Your task to perform on an android device: delete browsing data in the chrome app Image 0: 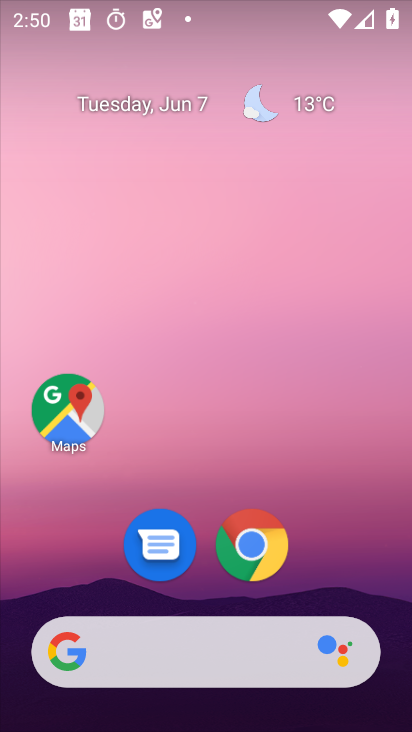
Step 0: click (273, 549)
Your task to perform on an android device: delete browsing data in the chrome app Image 1: 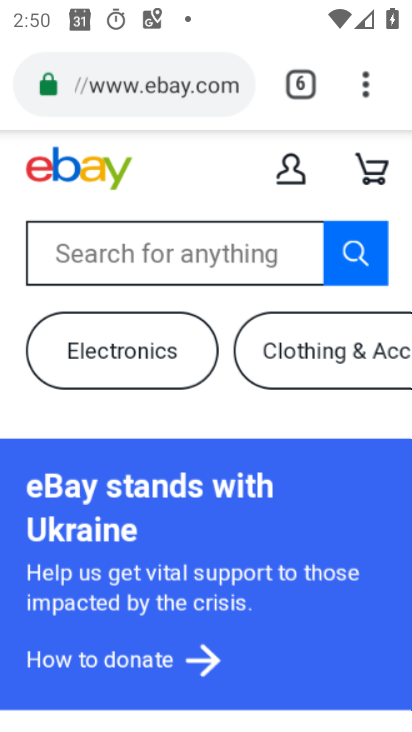
Step 1: click (364, 82)
Your task to perform on an android device: delete browsing data in the chrome app Image 2: 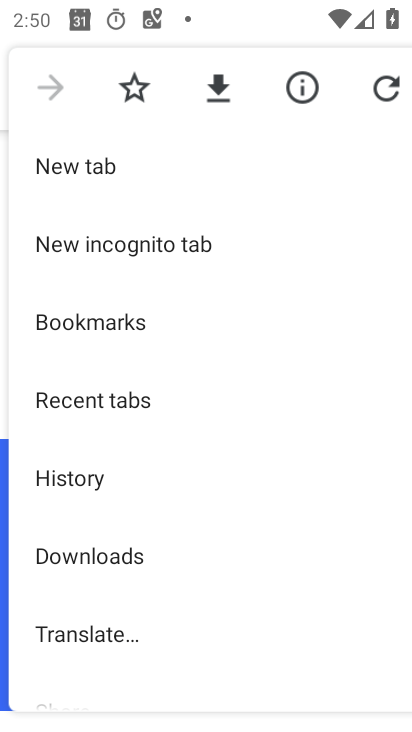
Step 2: click (141, 475)
Your task to perform on an android device: delete browsing data in the chrome app Image 3: 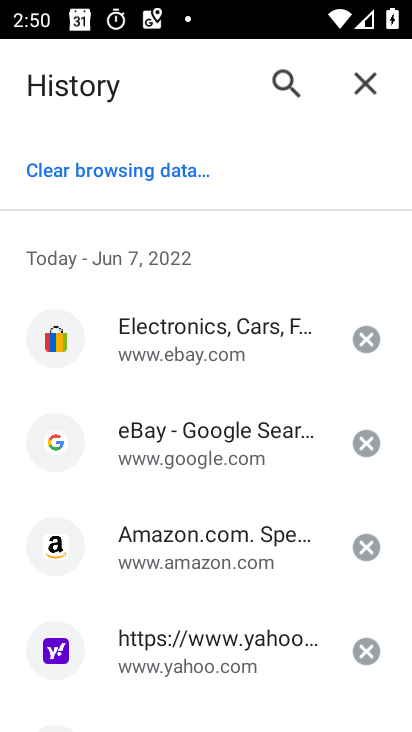
Step 3: click (161, 172)
Your task to perform on an android device: delete browsing data in the chrome app Image 4: 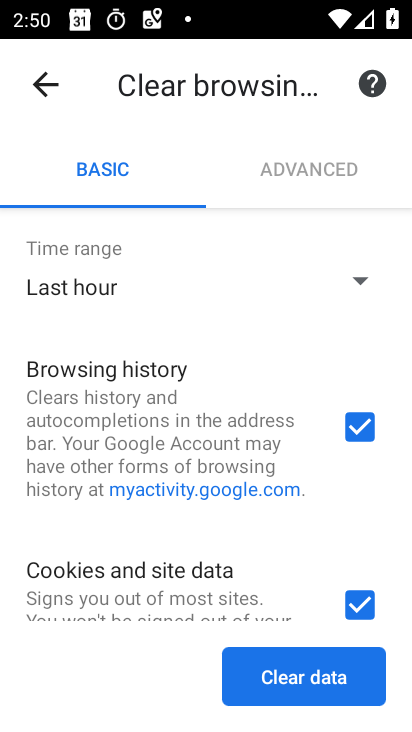
Step 4: click (324, 691)
Your task to perform on an android device: delete browsing data in the chrome app Image 5: 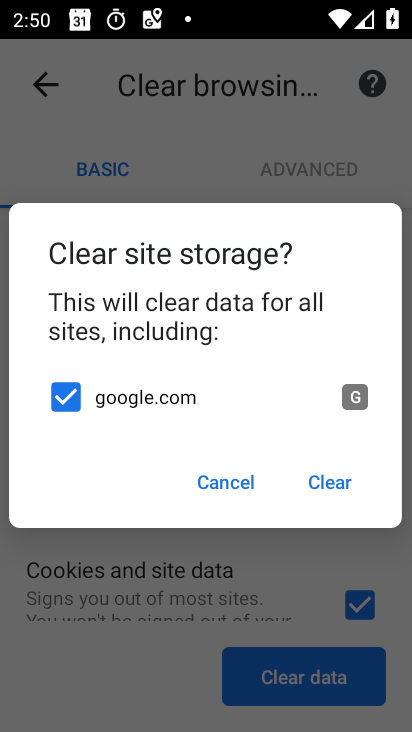
Step 5: click (343, 487)
Your task to perform on an android device: delete browsing data in the chrome app Image 6: 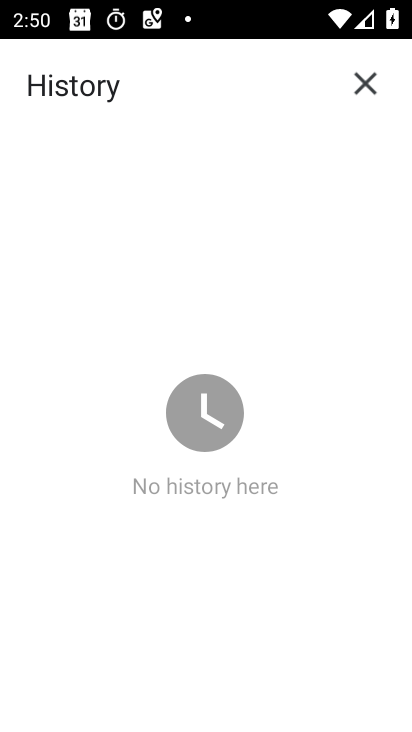
Step 6: task complete